Your task to perform on an android device: read, delete, or share a saved page in the chrome app Image 0: 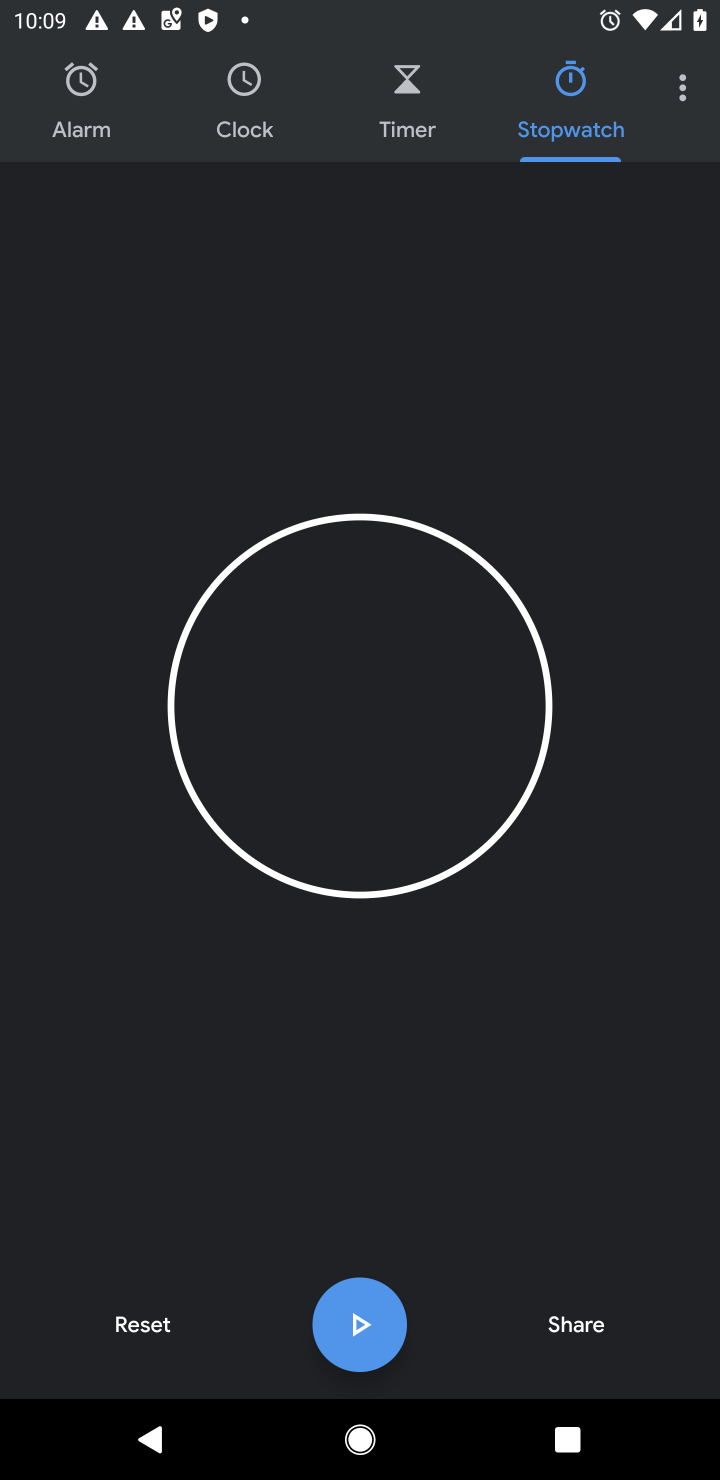
Step 0: press back button
Your task to perform on an android device: read, delete, or share a saved page in the chrome app Image 1: 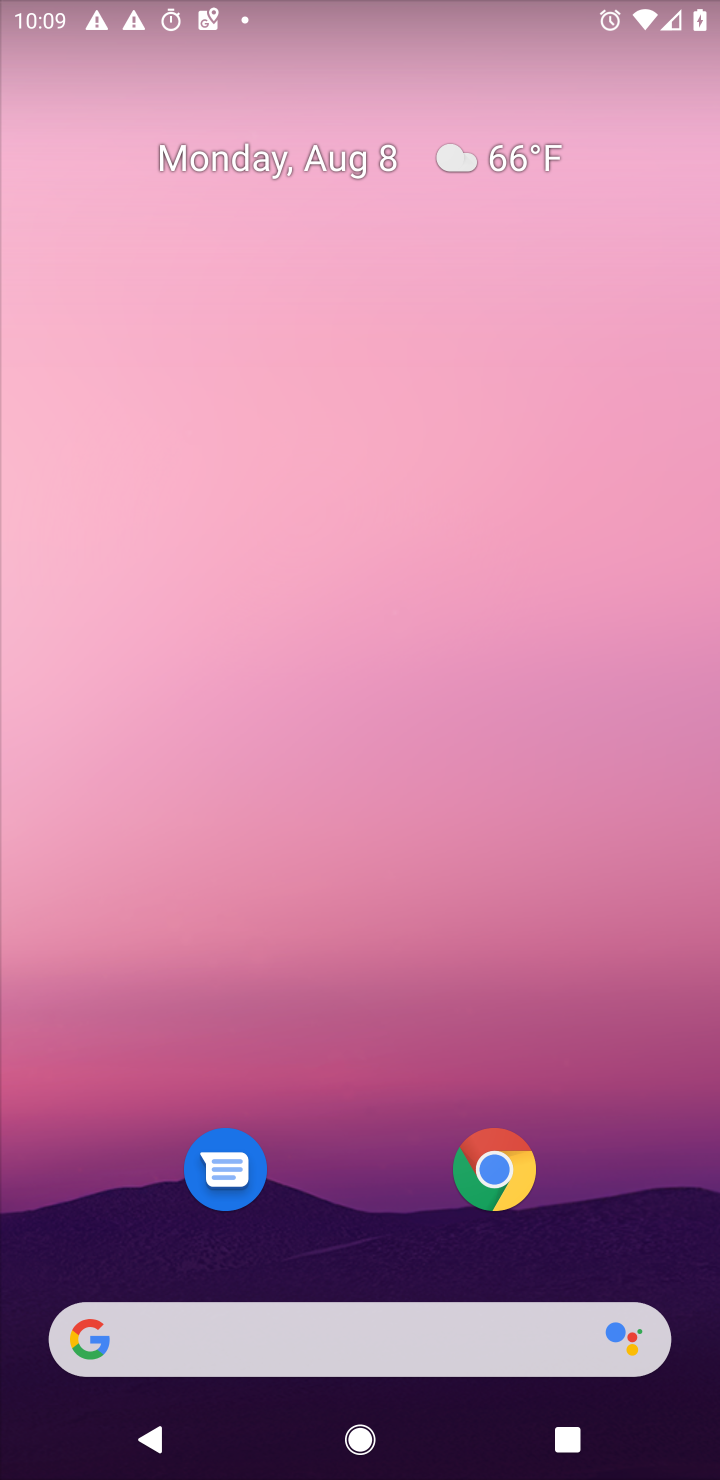
Step 1: click (507, 1175)
Your task to perform on an android device: read, delete, or share a saved page in the chrome app Image 2: 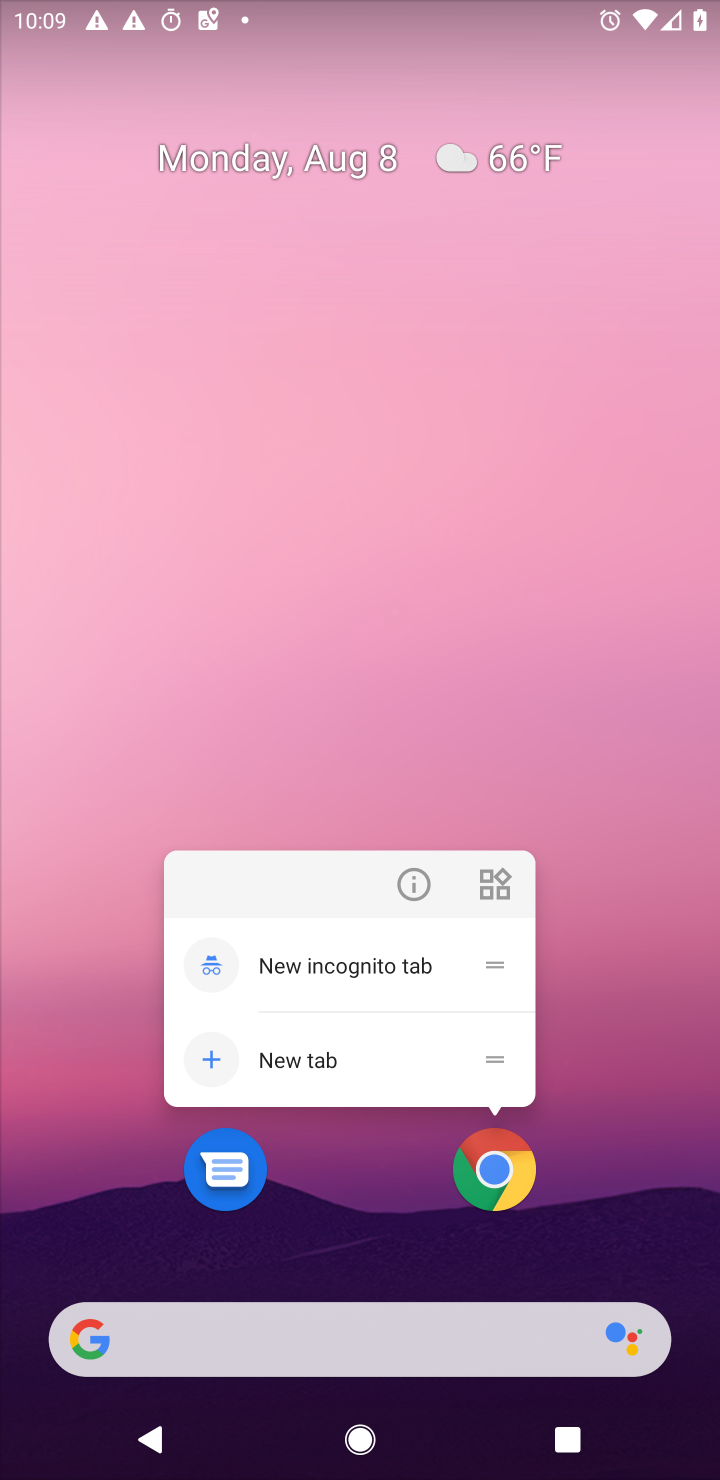
Step 2: click (507, 1175)
Your task to perform on an android device: read, delete, or share a saved page in the chrome app Image 3: 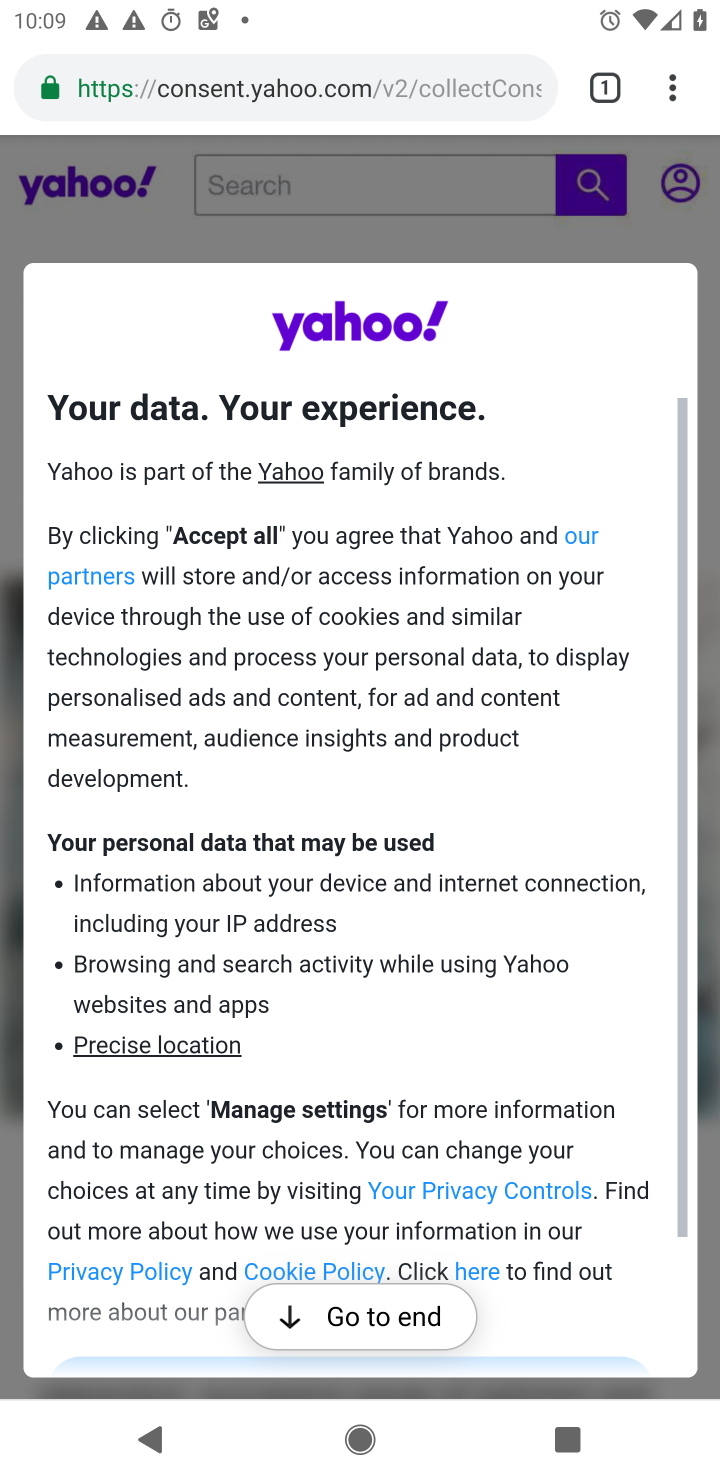
Step 3: task complete